Your task to perform on an android device: Go to network settings Image 0: 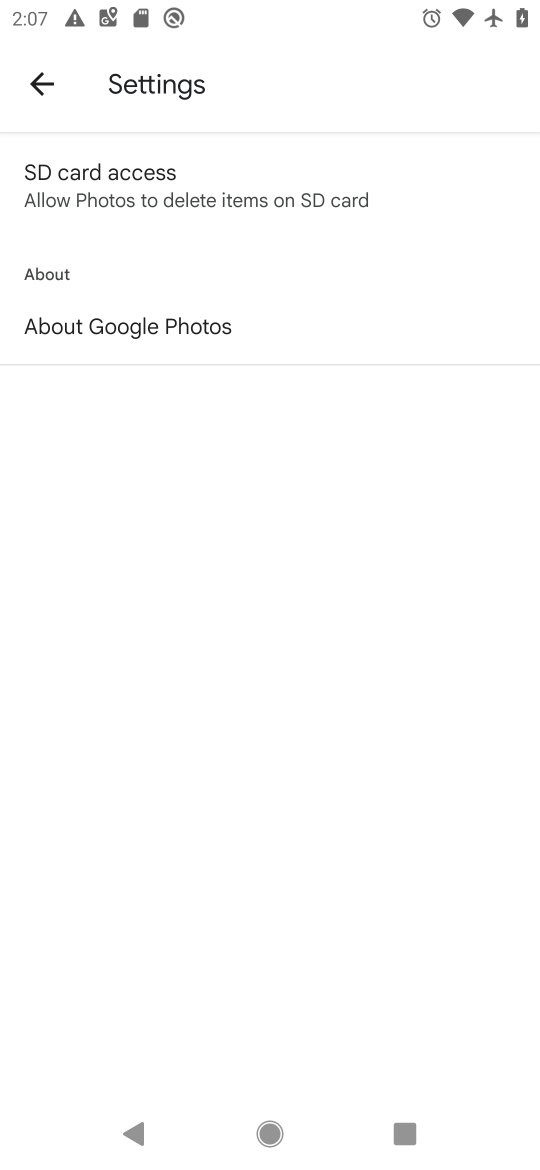
Step 0: task complete